Your task to perform on an android device: Open Google Chrome and click the shortcut for Amazon.com Image 0: 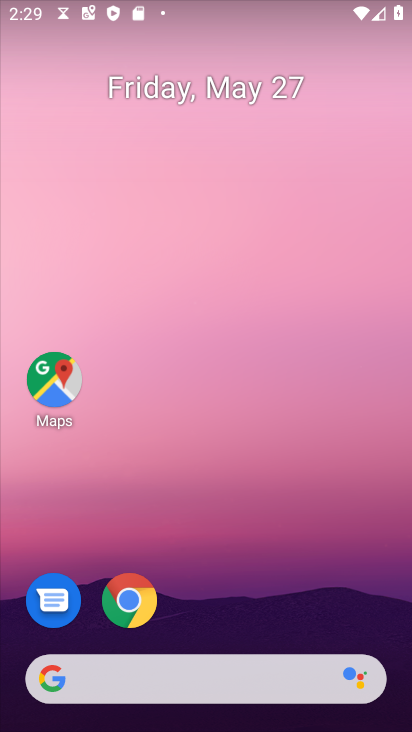
Step 0: drag from (231, 593) to (164, 47)
Your task to perform on an android device: Open Google Chrome and click the shortcut for Amazon.com Image 1: 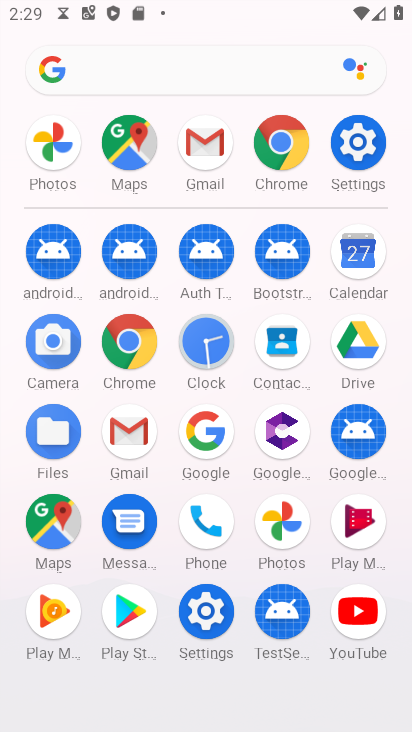
Step 1: drag from (9, 551) to (34, 218)
Your task to perform on an android device: Open Google Chrome and click the shortcut for Amazon.com Image 2: 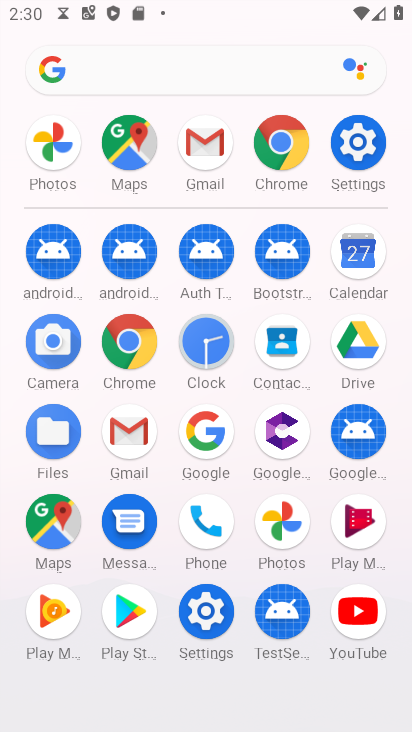
Step 2: click (123, 337)
Your task to perform on an android device: Open Google Chrome and click the shortcut for Amazon.com Image 3: 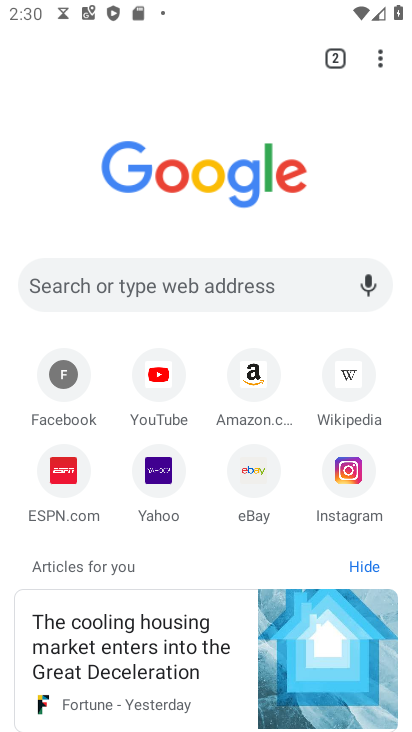
Step 3: click (248, 372)
Your task to perform on an android device: Open Google Chrome and click the shortcut for Amazon.com Image 4: 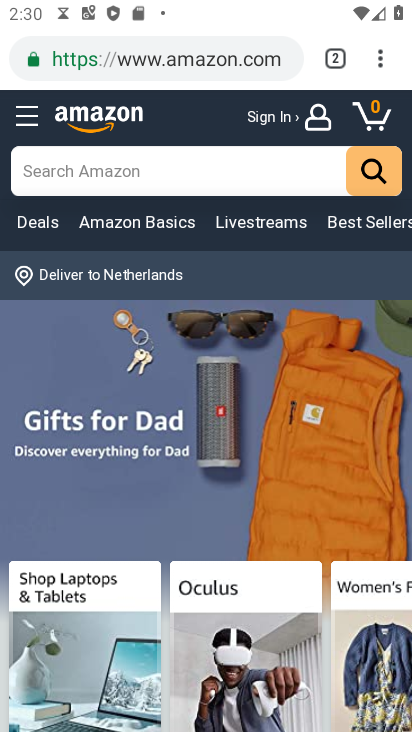
Step 4: task complete